Your task to perform on an android device: What's the weather going to be tomorrow? Image 0: 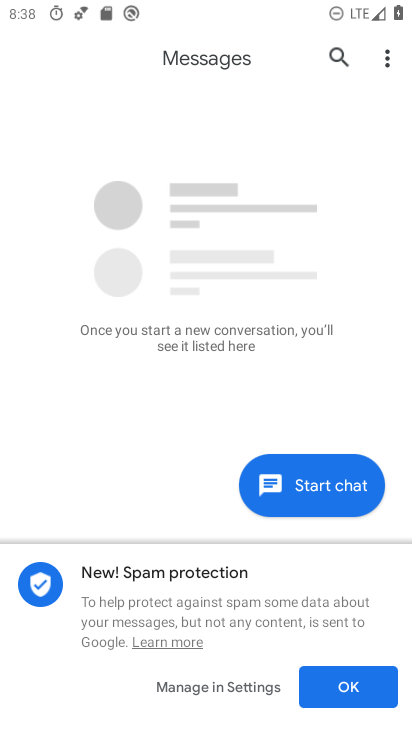
Step 0: press back button
Your task to perform on an android device: What's the weather going to be tomorrow? Image 1: 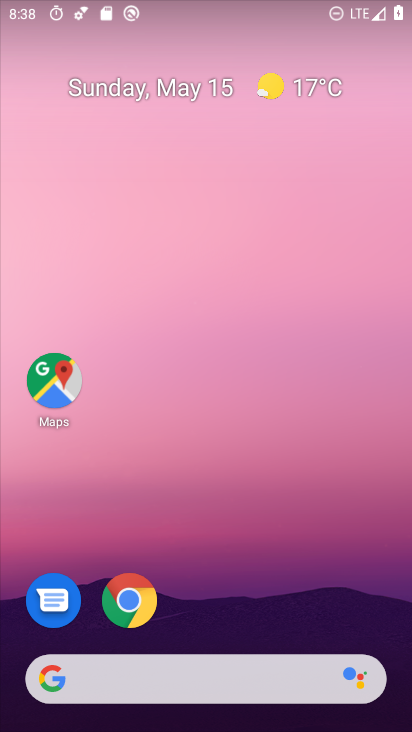
Step 1: drag from (256, 615) to (188, 89)
Your task to perform on an android device: What's the weather going to be tomorrow? Image 2: 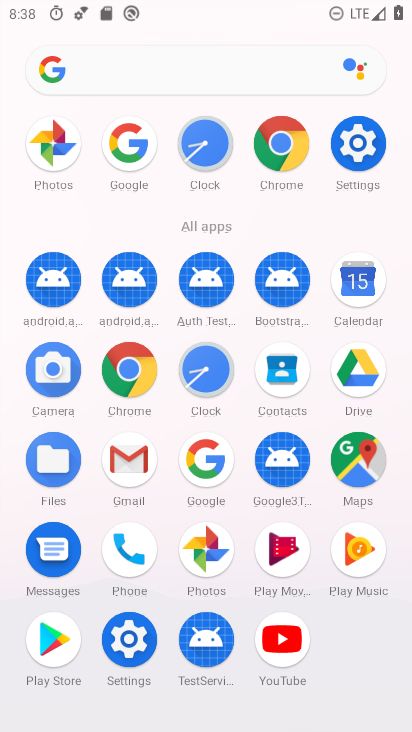
Step 2: click (124, 143)
Your task to perform on an android device: What's the weather going to be tomorrow? Image 3: 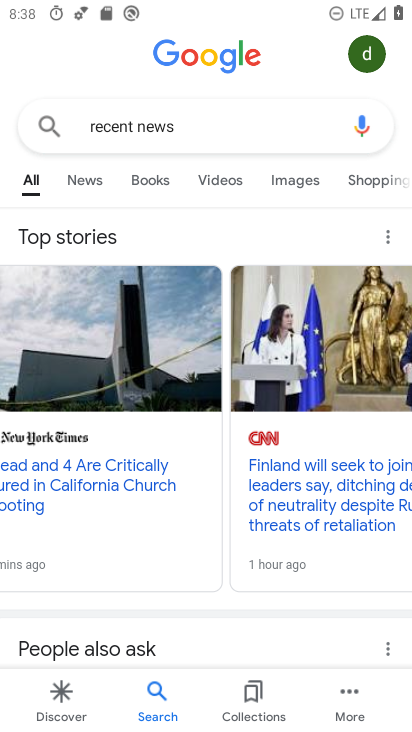
Step 3: click (209, 130)
Your task to perform on an android device: What's the weather going to be tomorrow? Image 4: 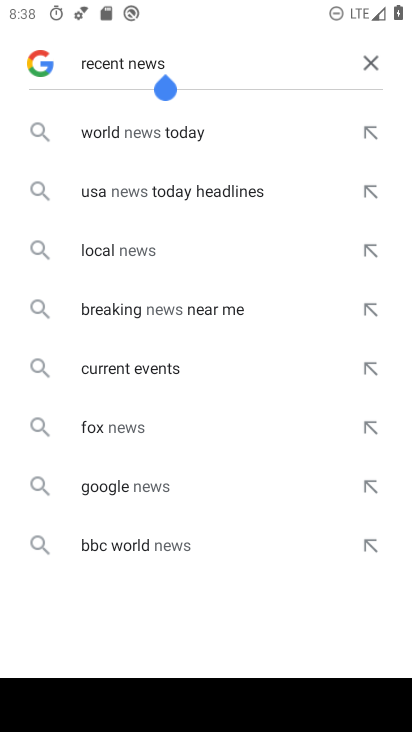
Step 4: click (371, 63)
Your task to perform on an android device: What's the weather going to be tomorrow? Image 5: 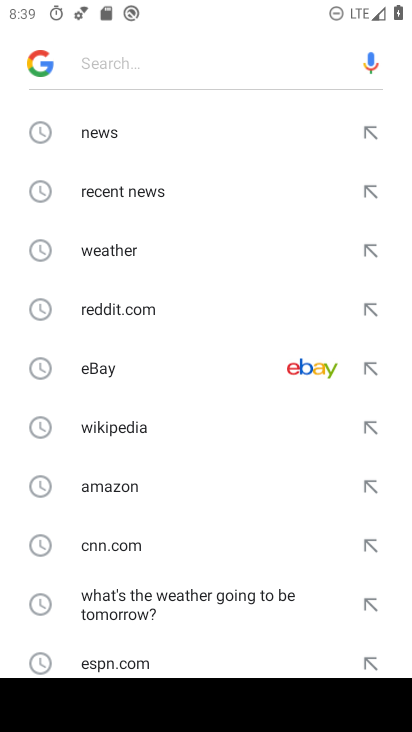
Step 5: type "What's the weather going to be tomorrow?"
Your task to perform on an android device: What's the weather going to be tomorrow? Image 6: 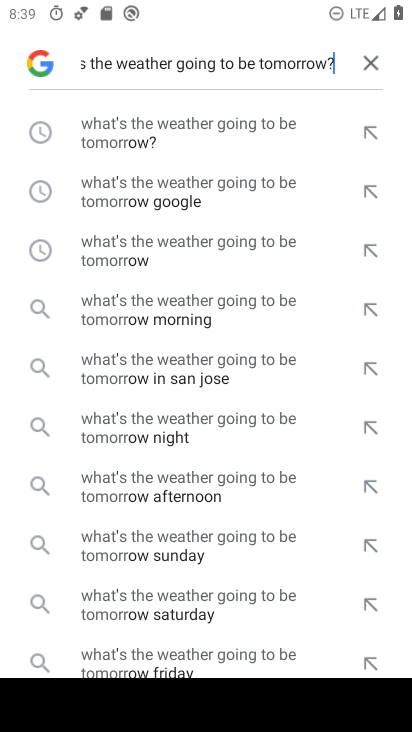
Step 6: type ""
Your task to perform on an android device: What's the weather going to be tomorrow? Image 7: 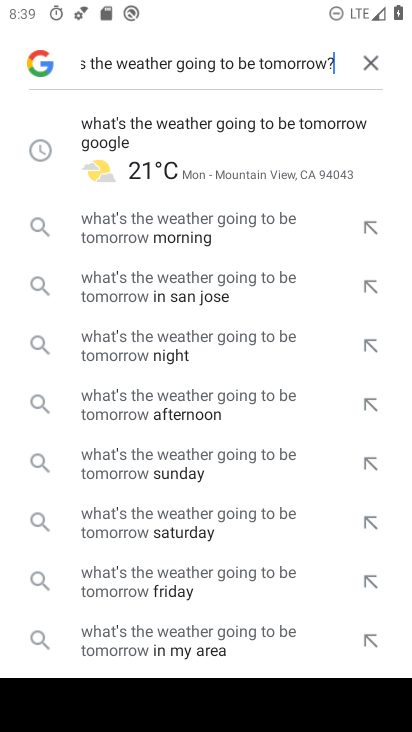
Step 7: click (159, 123)
Your task to perform on an android device: What's the weather going to be tomorrow? Image 8: 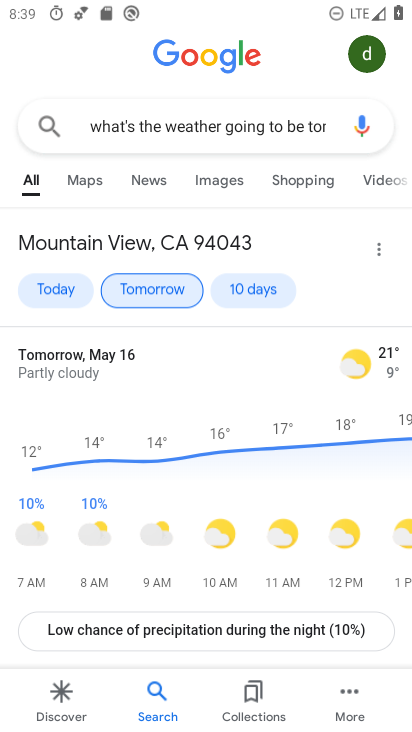
Step 8: task complete